Your task to perform on an android device: choose inbox layout in the gmail app Image 0: 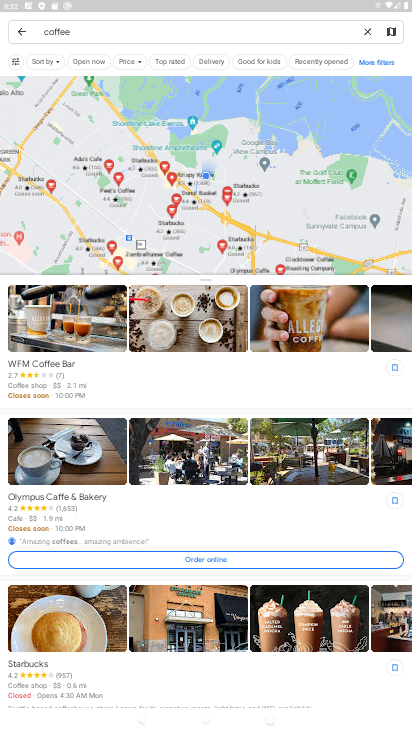
Step 0: press back button
Your task to perform on an android device: choose inbox layout in the gmail app Image 1: 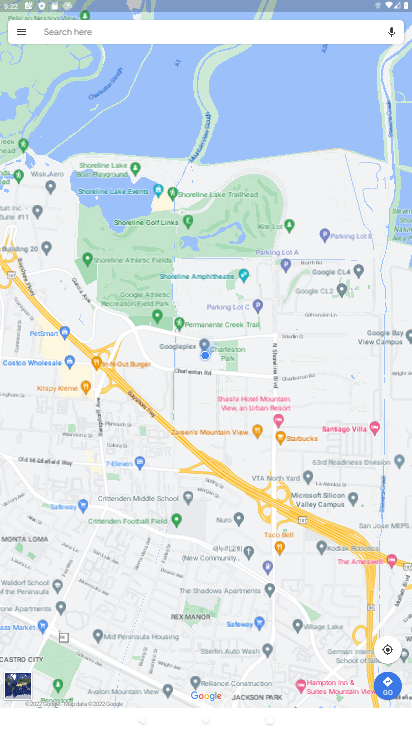
Step 1: press home button
Your task to perform on an android device: choose inbox layout in the gmail app Image 2: 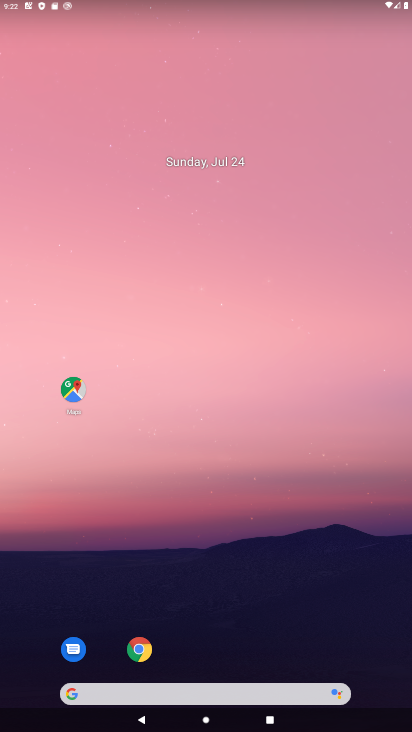
Step 2: drag from (197, 602) to (307, 59)
Your task to perform on an android device: choose inbox layout in the gmail app Image 3: 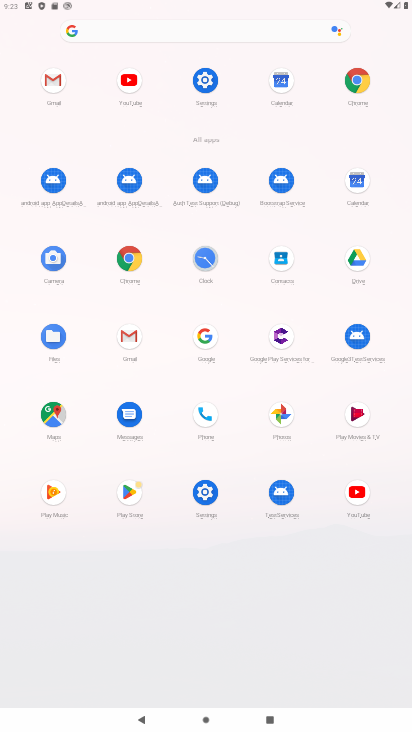
Step 3: click (51, 94)
Your task to perform on an android device: choose inbox layout in the gmail app Image 4: 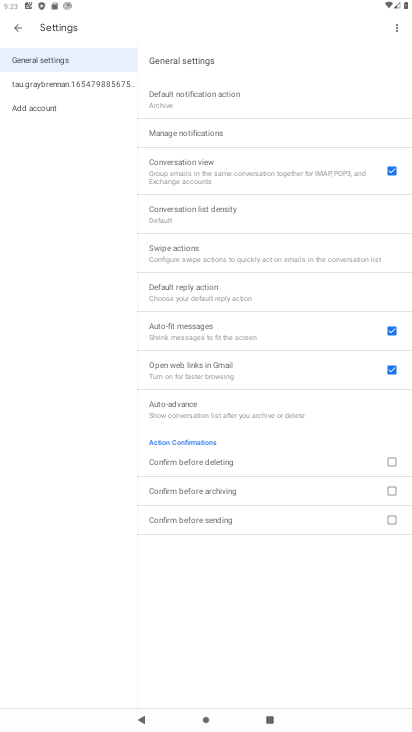
Step 4: click (96, 84)
Your task to perform on an android device: choose inbox layout in the gmail app Image 5: 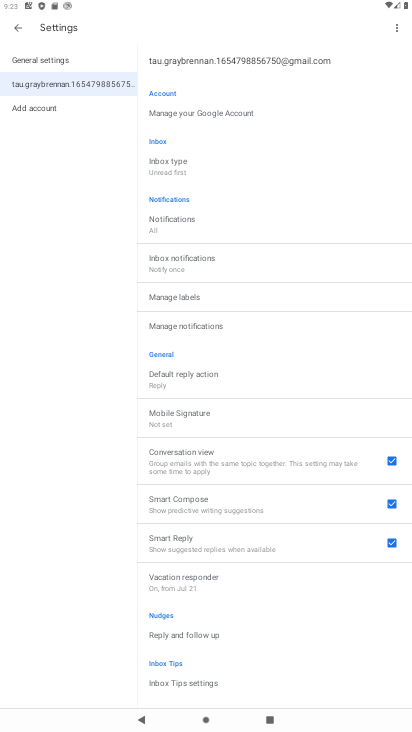
Step 5: click (177, 169)
Your task to perform on an android device: choose inbox layout in the gmail app Image 6: 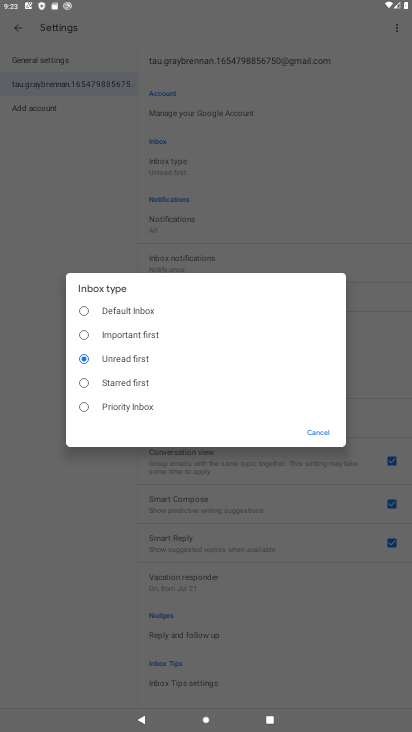
Step 6: click (86, 314)
Your task to perform on an android device: choose inbox layout in the gmail app Image 7: 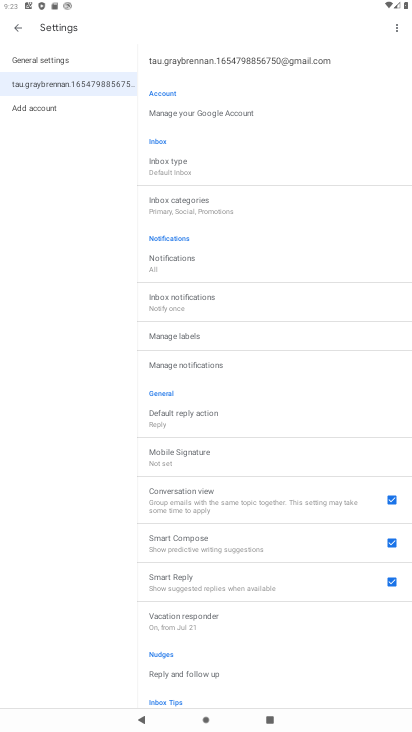
Step 7: click (169, 158)
Your task to perform on an android device: choose inbox layout in the gmail app Image 8: 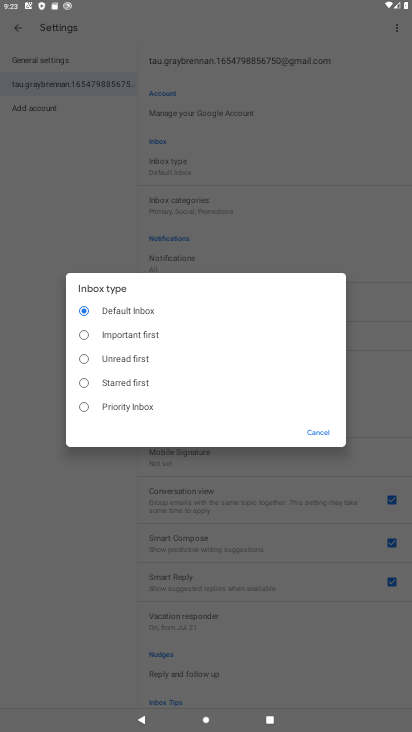
Step 8: click (83, 405)
Your task to perform on an android device: choose inbox layout in the gmail app Image 9: 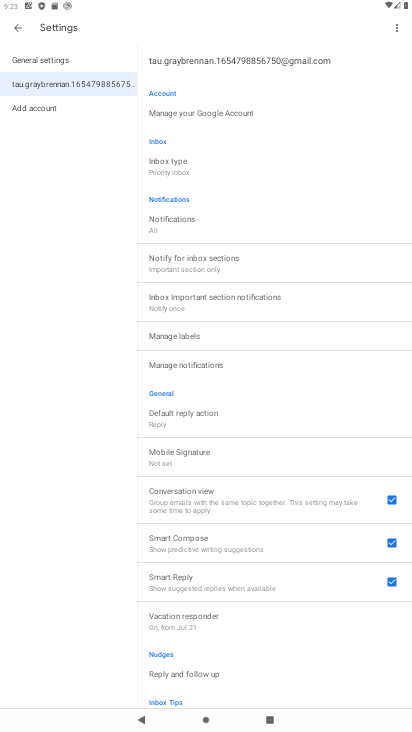
Step 9: task complete